Your task to perform on an android device: change timer sound Image 0: 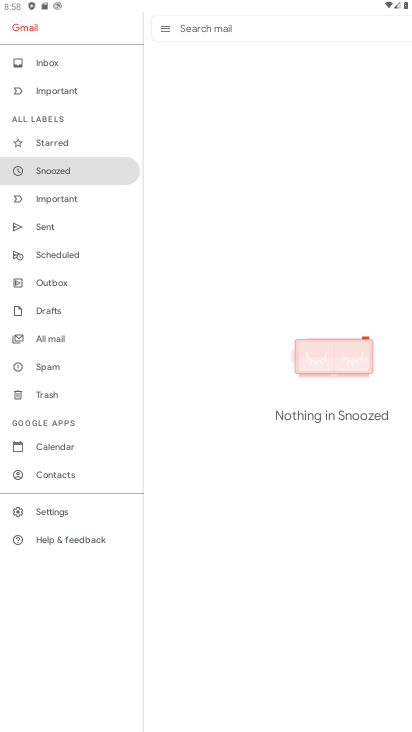
Step 0: press home button
Your task to perform on an android device: change timer sound Image 1: 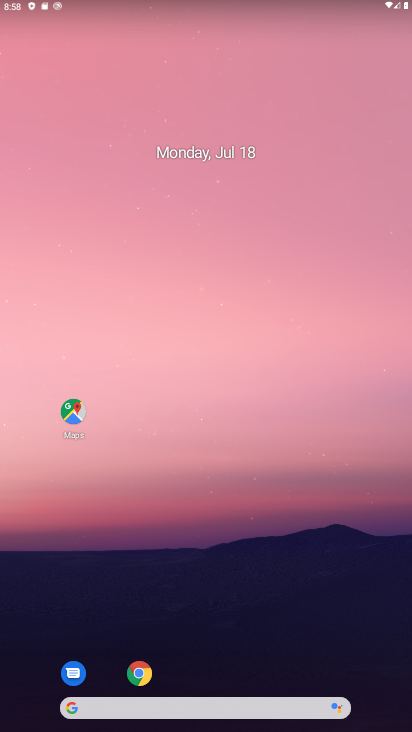
Step 1: drag from (250, 476) to (311, 174)
Your task to perform on an android device: change timer sound Image 2: 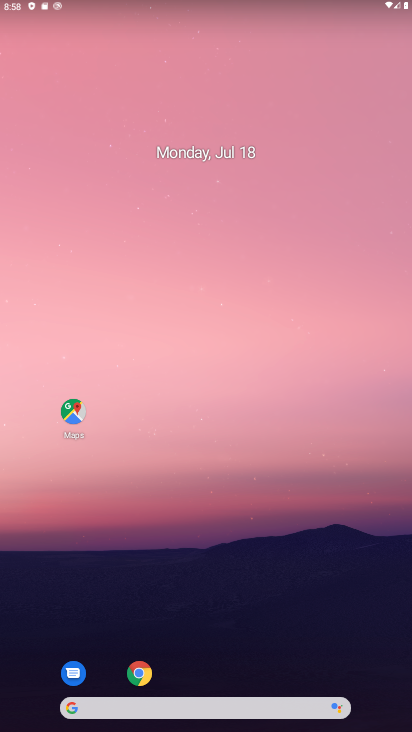
Step 2: drag from (200, 671) to (292, 96)
Your task to perform on an android device: change timer sound Image 3: 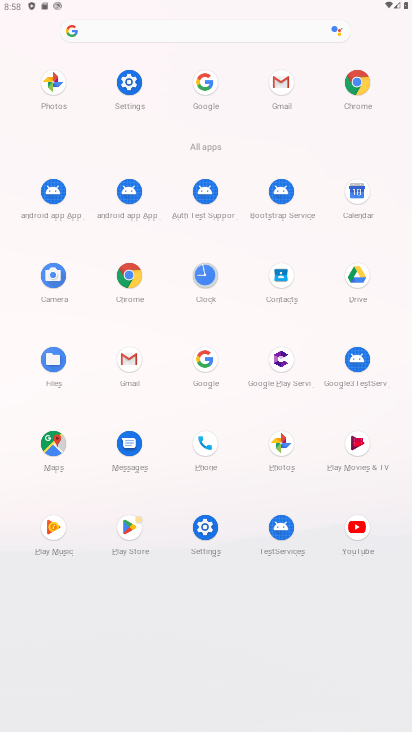
Step 3: click (205, 277)
Your task to perform on an android device: change timer sound Image 4: 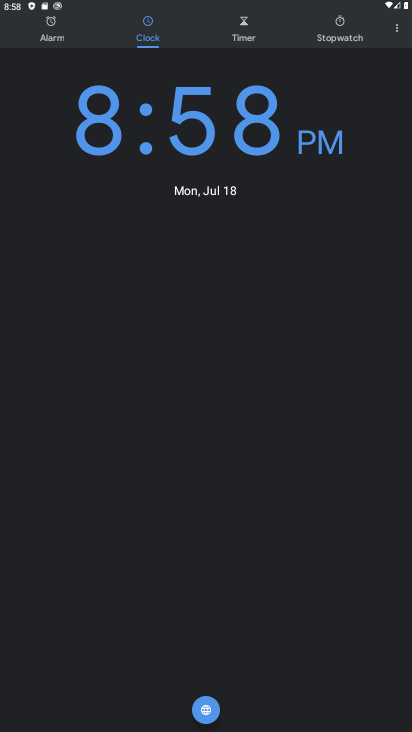
Step 4: click (400, 25)
Your task to perform on an android device: change timer sound Image 5: 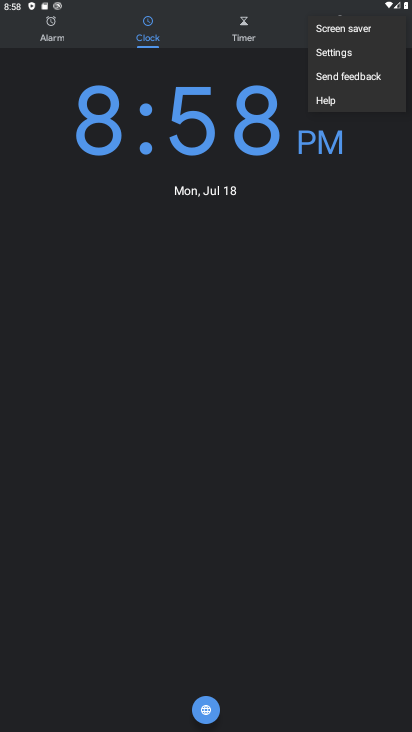
Step 5: click (357, 57)
Your task to perform on an android device: change timer sound Image 6: 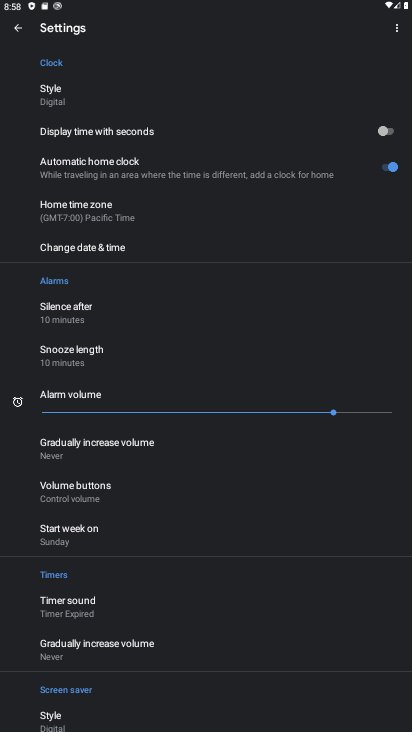
Step 6: click (126, 604)
Your task to perform on an android device: change timer sound Image 7: 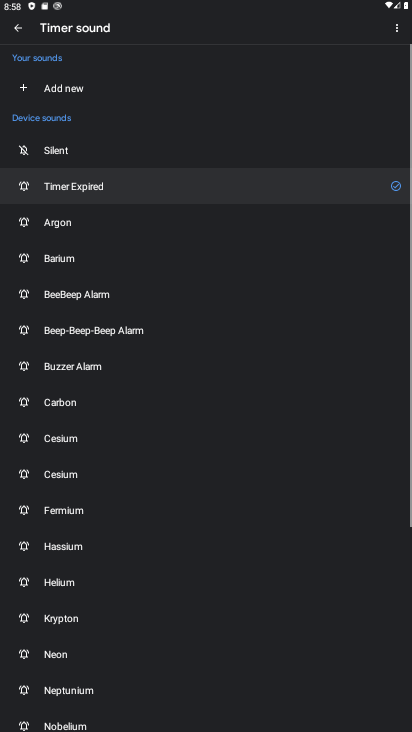
Step 7: click (155, 425)
Your task to perform on an android device: change timer sound Image 8: 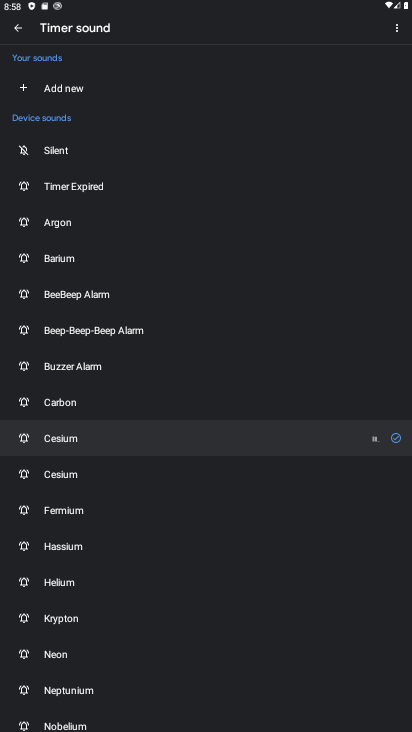
Step 8: task complete